Your task to perform on an android device: Open Chrome and go to the settings page Image 0: 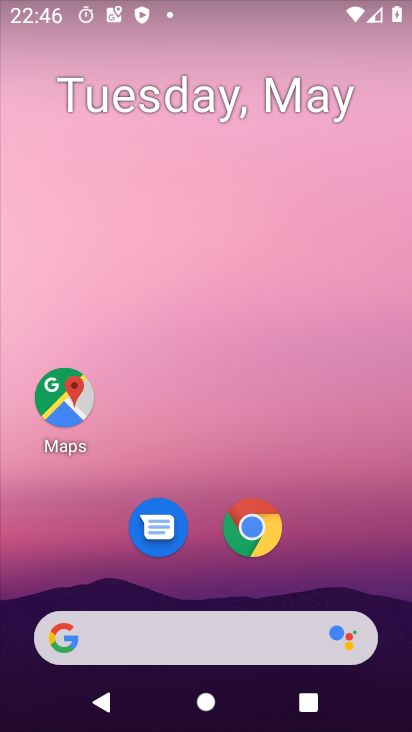
Step 0: drag from (193, 621) to (216, 93)
Your task to perform on an android device: Open Chrome and go to the settings page Image 1: 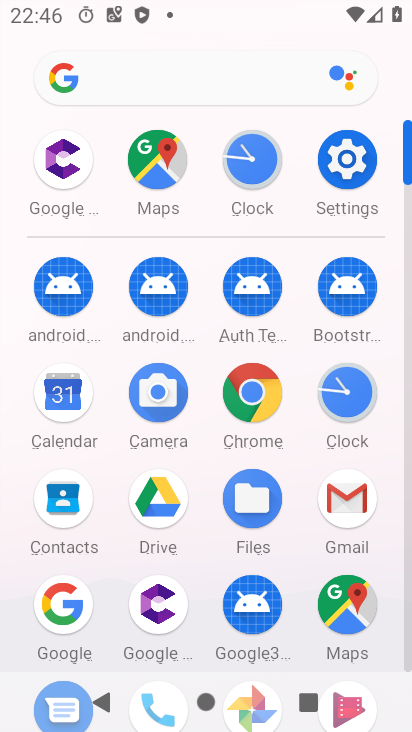
Step 1: click (253, 402)
Your task to perform on an android device: Open Chrome and go to the settings page Image 2: 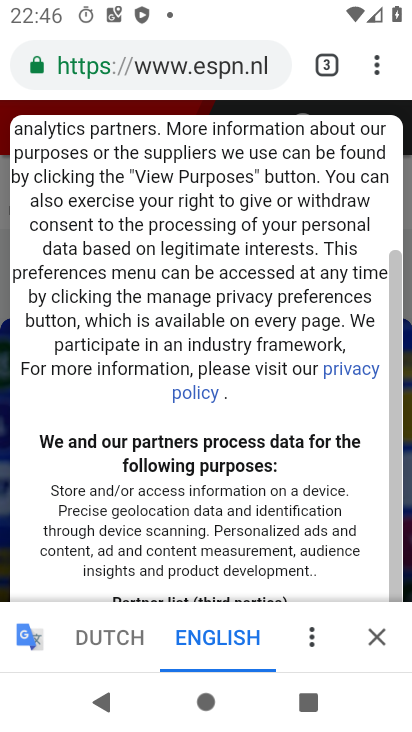
Step 2: task complete